Your task to perform on an android device: turn off location Image 0: 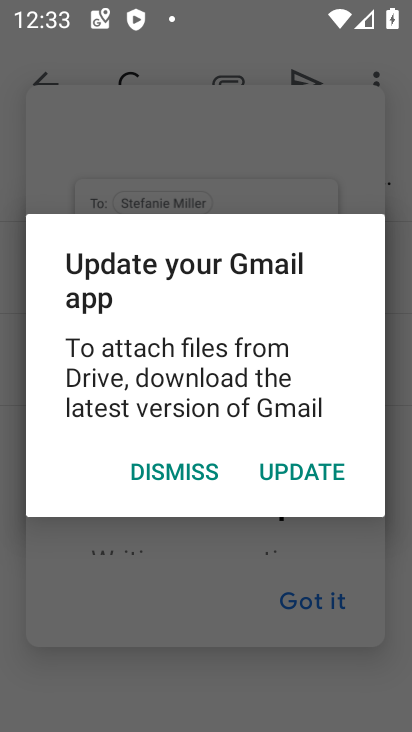
Step 0: press home button
Your task to perform on an android device: turn off location Image 1: 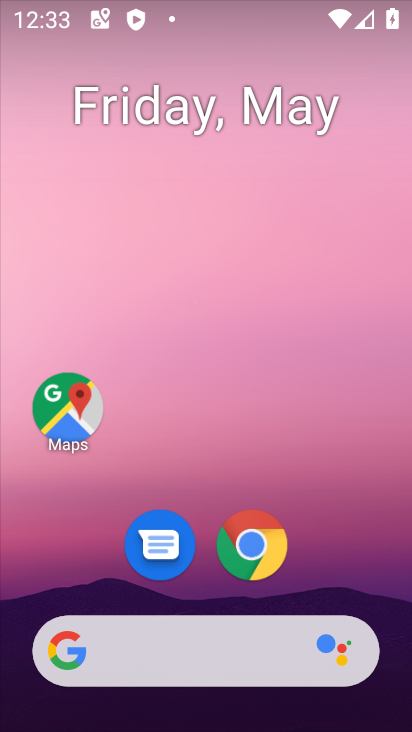
Step 1: drag from (316, 488) to (327, 261)
Your task to perform on an android device: turn off location Image 2: 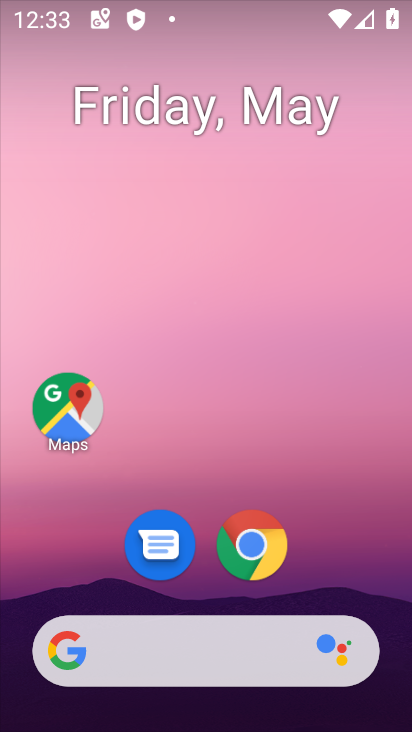
Step 2: drag from (342, 556) to (327, 157)
Your task to perform on an android device: turn off location Image 3: 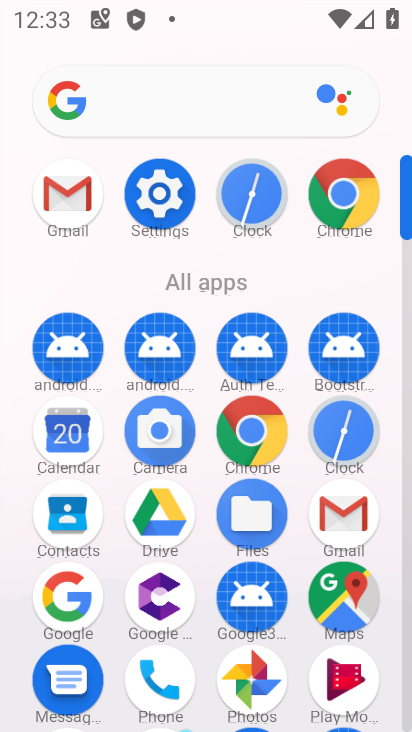
Step 3: click (160, 184)
Your task to perform on an android device: turn off location Image 4: 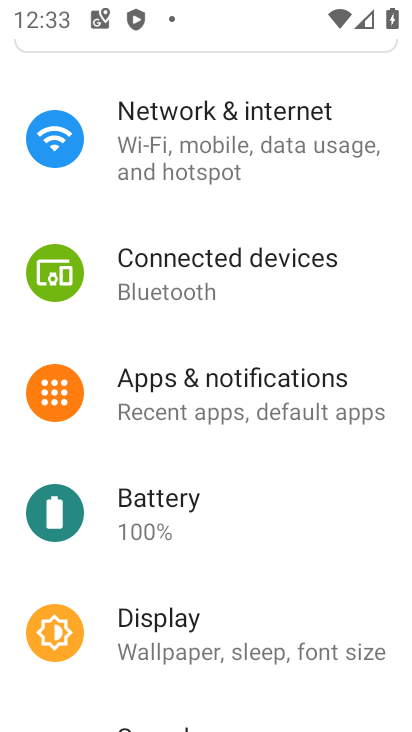
Step 4: drag from (287, 385) to (306, 248)
Your task to perform on an android device: turn off location Image 5: 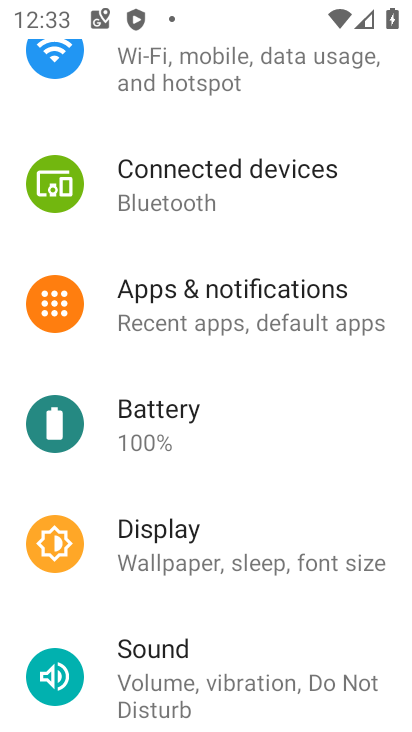
Step 5: drag from (230, 571) to (251, 260)
Your task to perform on an android device: turn off location Image 6: 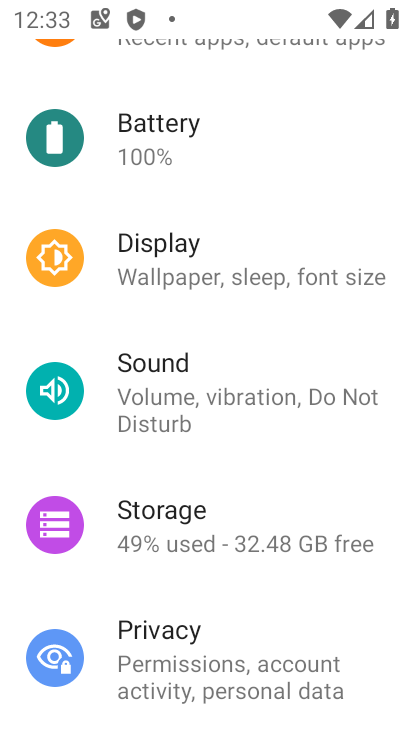
Step 6: drag from (273, 528) to (323, 193)
Your task to perform on an android device: turn off location Image 7: 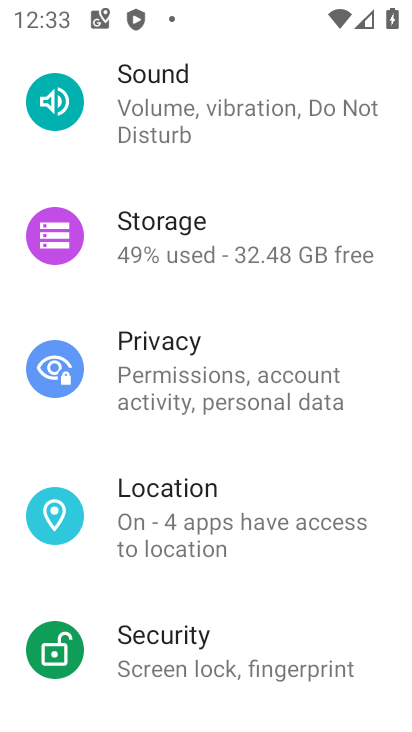
Step 7: click (280, 514)
Your task to perform on an android device: turn off location Image 8: 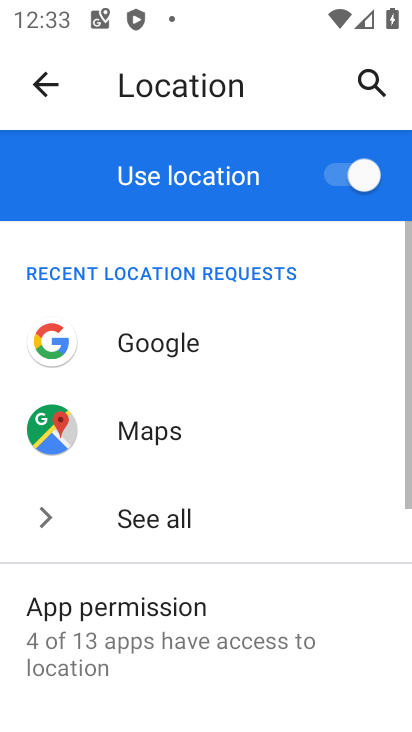
Step 8: click (379, 173)
Your task to perform on an android device: turn off location Image 9: 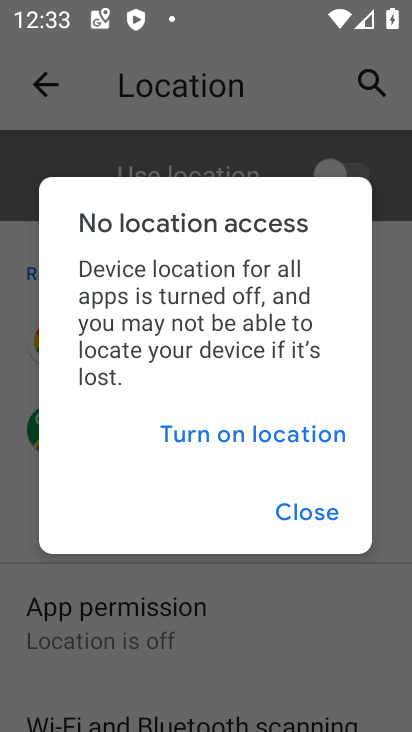
Step 9: task complete